Your task to perform on an android device: Check my email inbox Image 0: 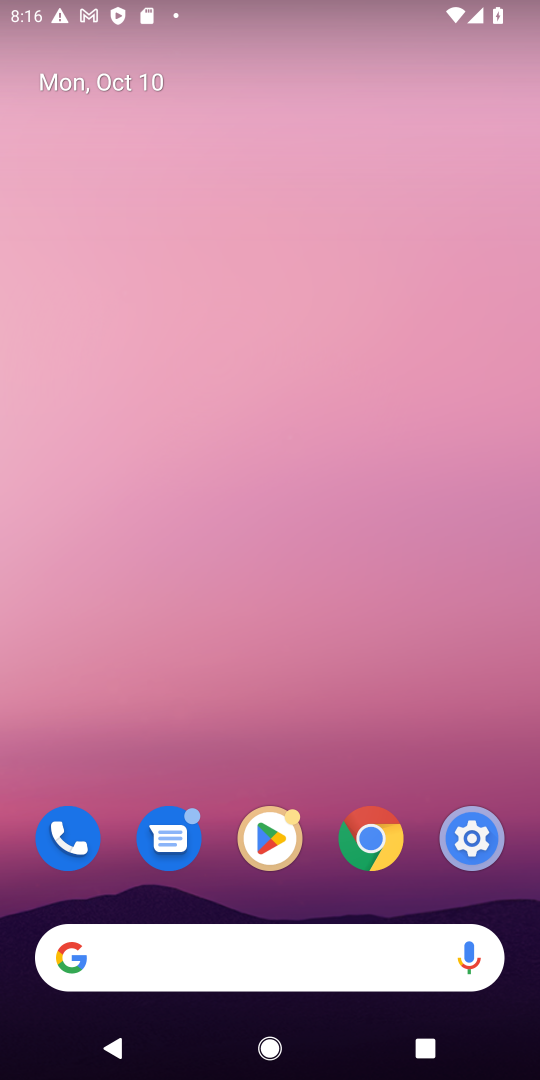
Step 0: drag from (330, 851) to (337, 18)
Your task to perform on an android device: Check my email inbox Image 1: 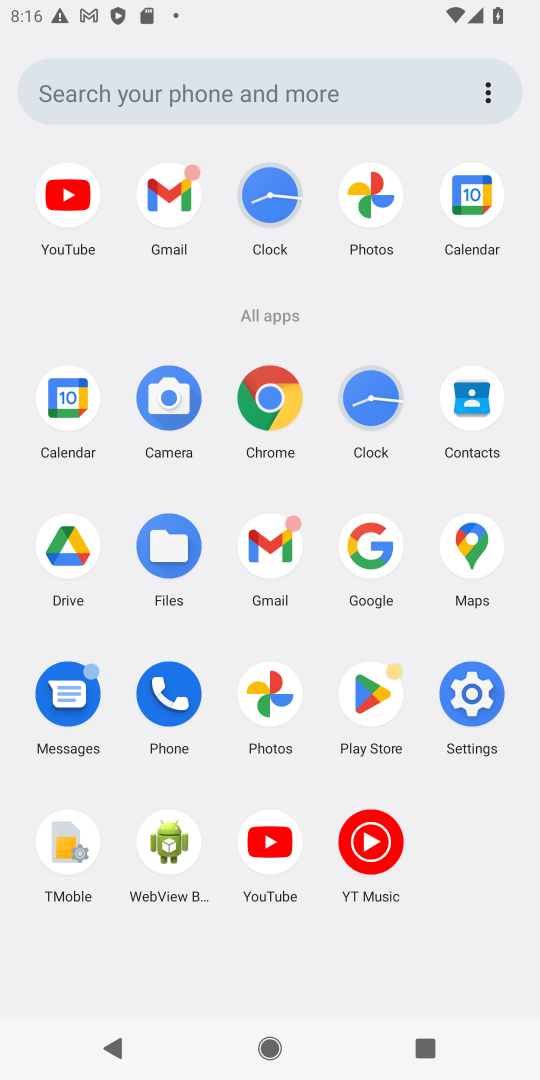
Step 1: click (277, 529)
Your task to perform on an android device: Check my email inbox Image 2: 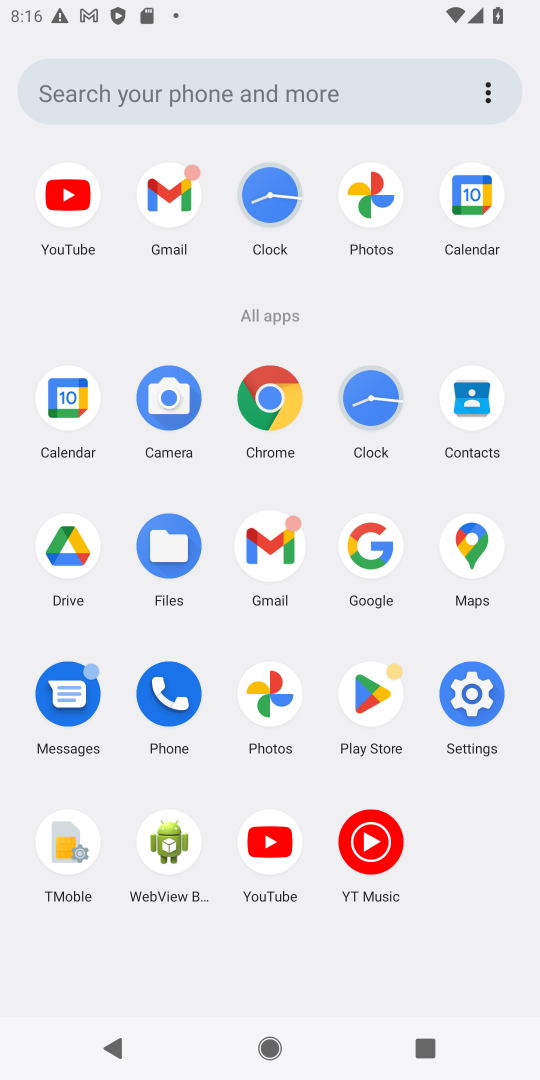
Step 2: click (272, 533)
Your task to perform on an android device: Check my email inbox Image 3: 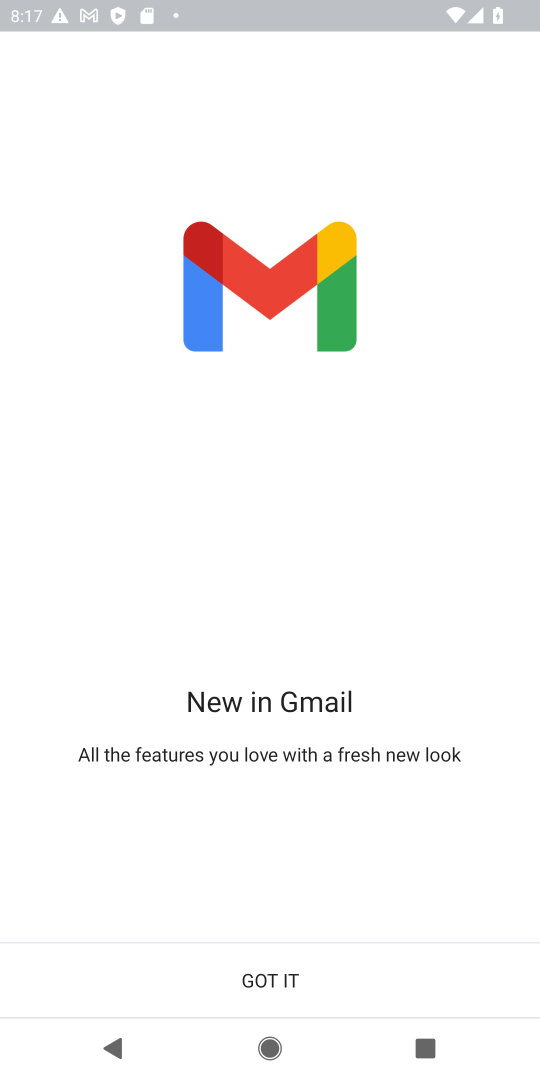
Step 3: click (277, 977)
Your task to perform on an android device: Check my email inbox Image 4: 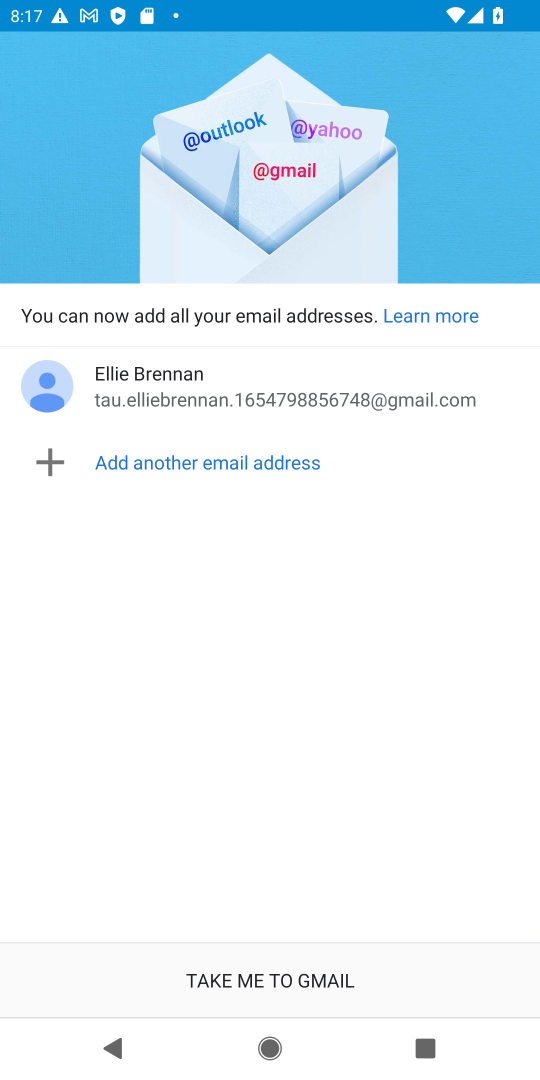
Step 4: click (276, 982)
Your task to perform on an android device: Check my email inbox Image 5: 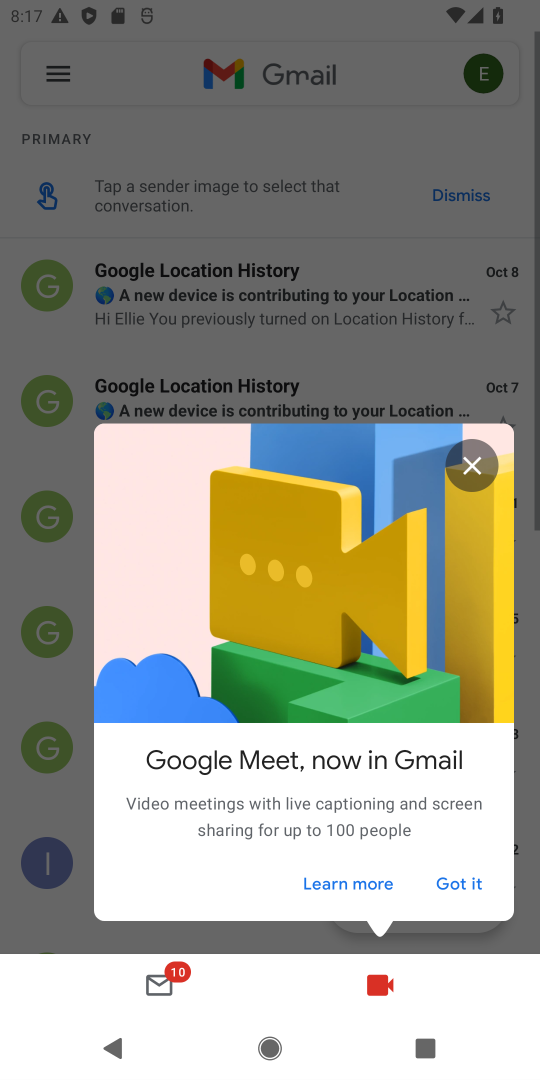
Step 5: click (472, 871)
Your task to perform on an android device: Check my email inbox Image 6: 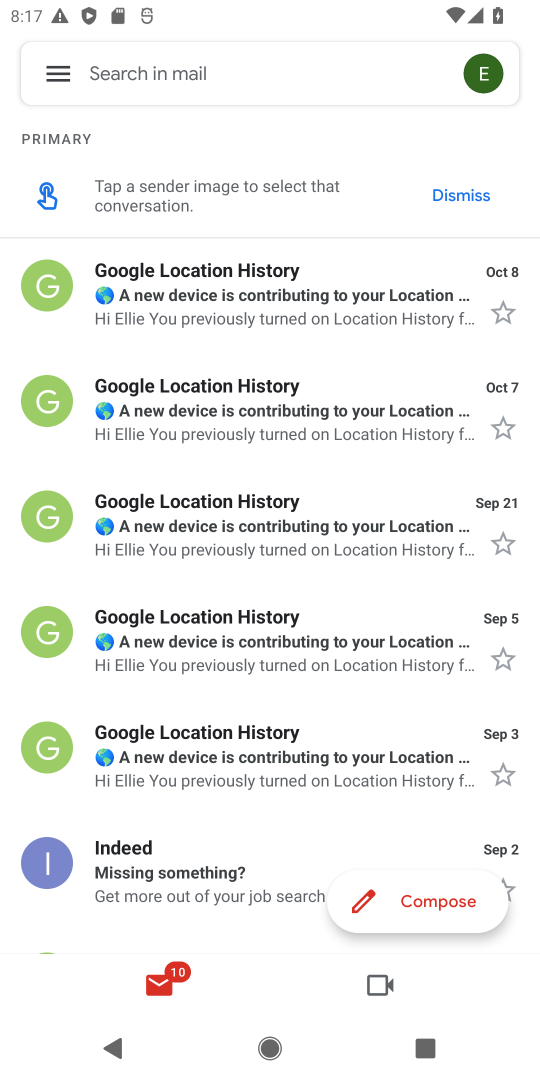
Step 6: task complete